Your task to perform on an android device: delete browsing data in the chrome app Image 0: 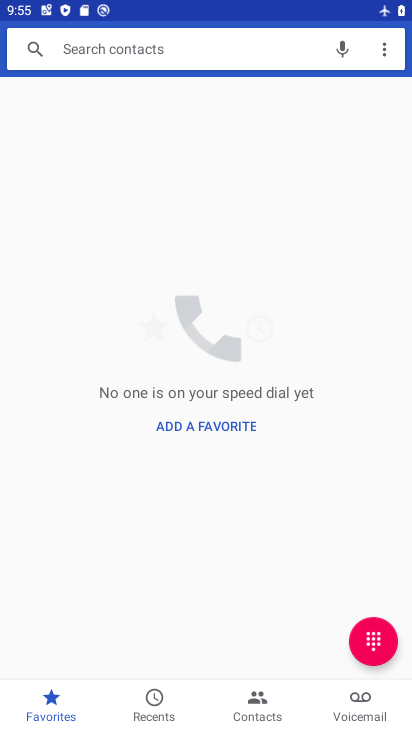
Step 0: press home button
Your task to perform on an android device: delete browsing data in the chrome app Image 1: 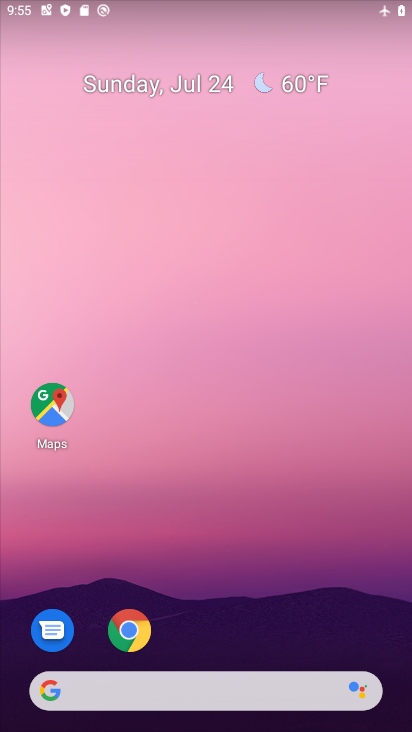
Step 1: click (131, 627)
Your task to perform on an android device: delete browsing data in the chrome app Image 2: 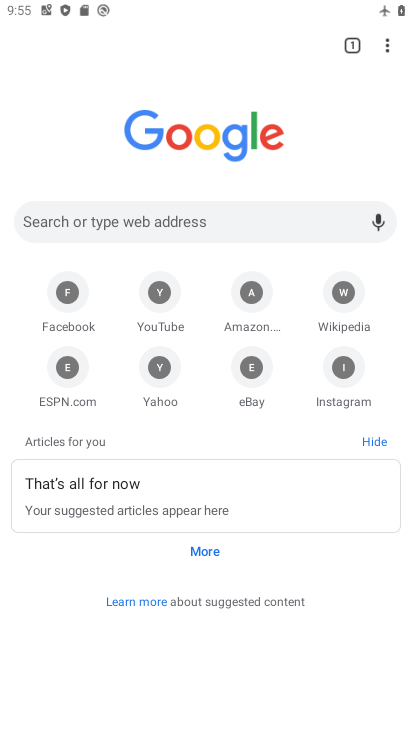
Step 2: click (390, 42)
Your task to perform on an android device: delete browsing data in the chrome app Image 3: 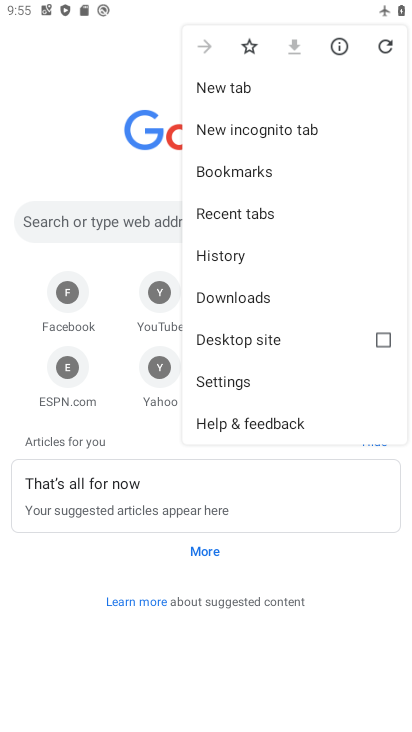
Step 3: click (233, 262)
Your task to perform on an android device: delete browsing data in the chrome app Image 4: 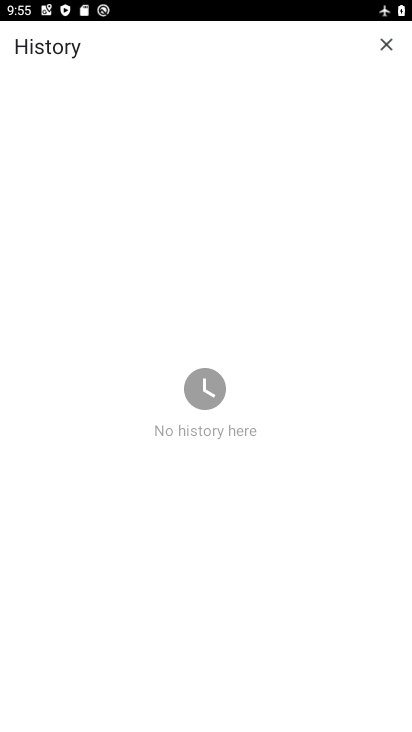
Step 4: task complete